Your task to perform on an android device: open wifi settings Image 0: 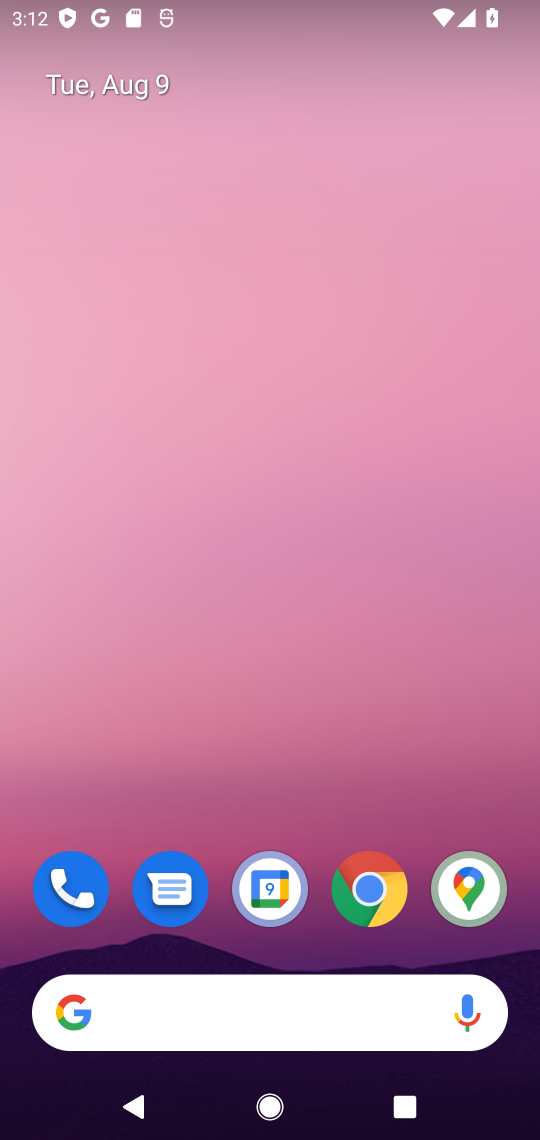
Step 0: drag from (302, 777) to (374, 0)
Your task to perform on an android device: open wifi settings Image 1: 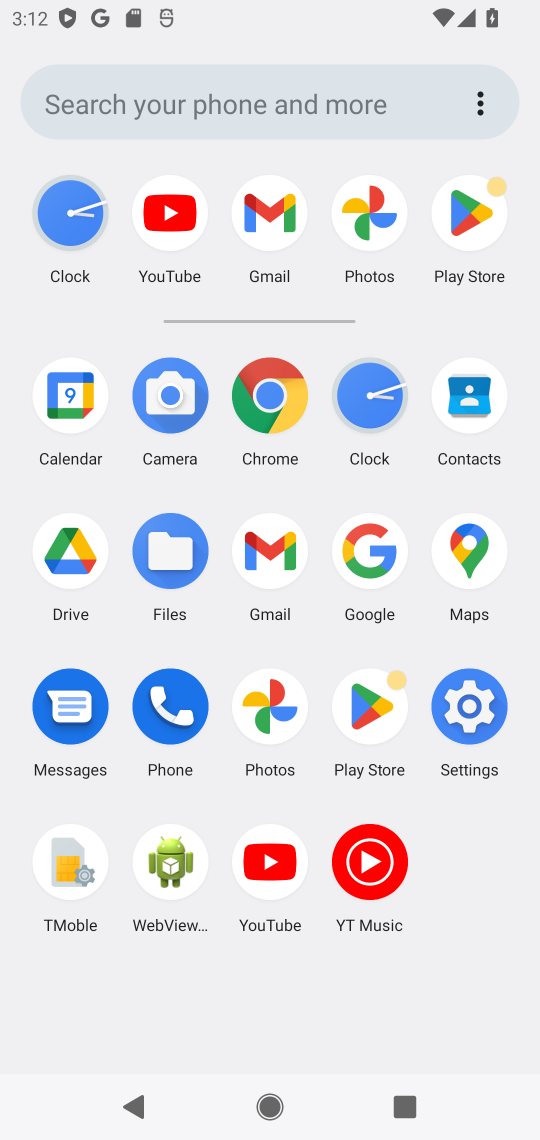
Step 1: click (464, 700)
Your task to perform on an android device: open wifi settings Image 2: 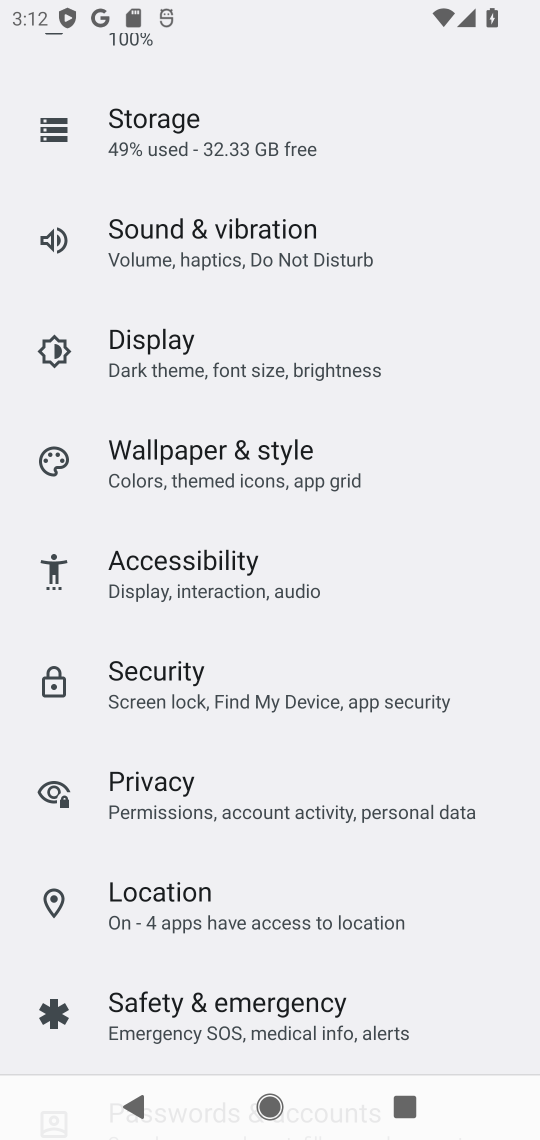
Step 2: drag from (309, 195) to (317, 904)
Your task to perform on an android device: open wifi settings Image 3: 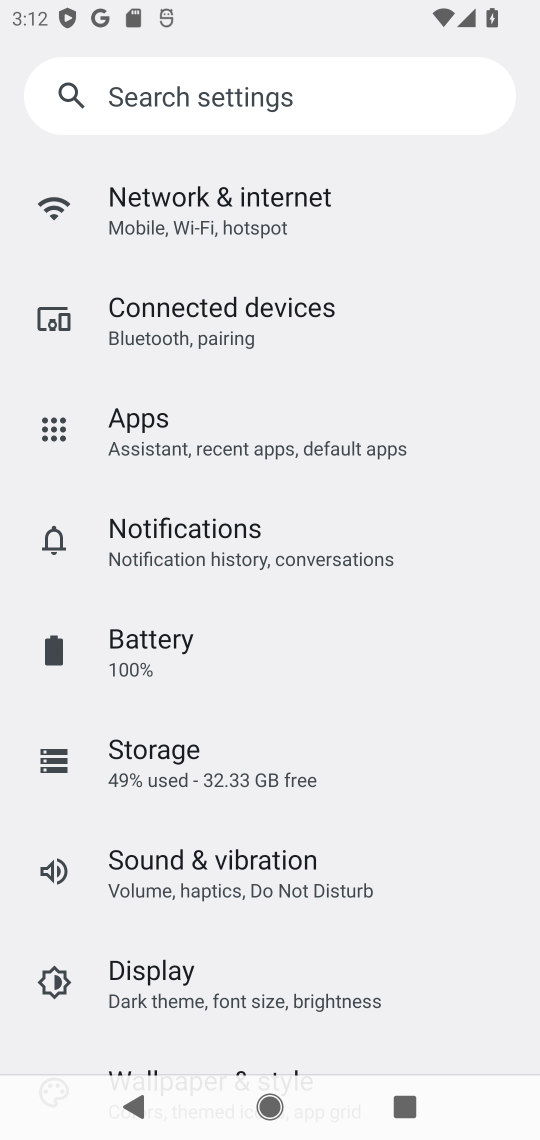
Step 3: drag from (321, 380) to (286, 964)
Your task to perform on an android device: open wifi settings Image 4: 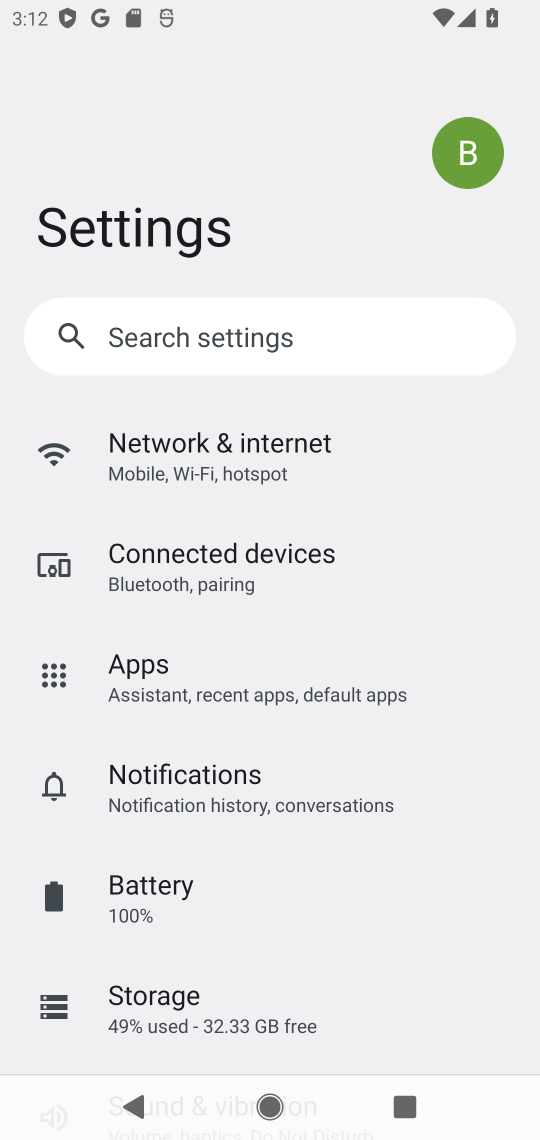
Step 4: click (286, 458)
Your task to perform on an android device: open wifi settings Image 5: 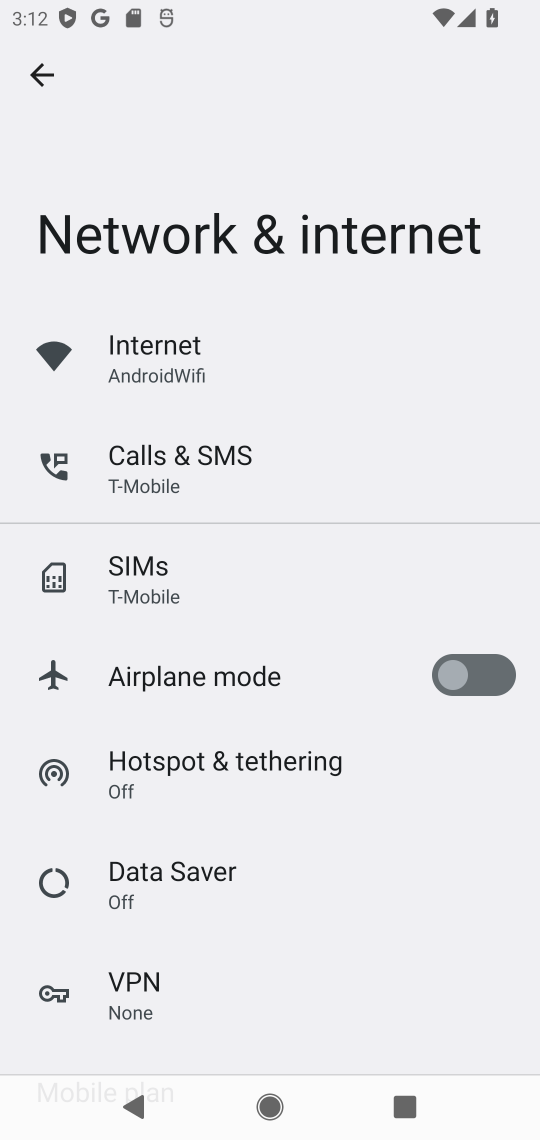
Step 5: click (165, 343)
Your task to perform on an android device: open wifi settings Image 6: 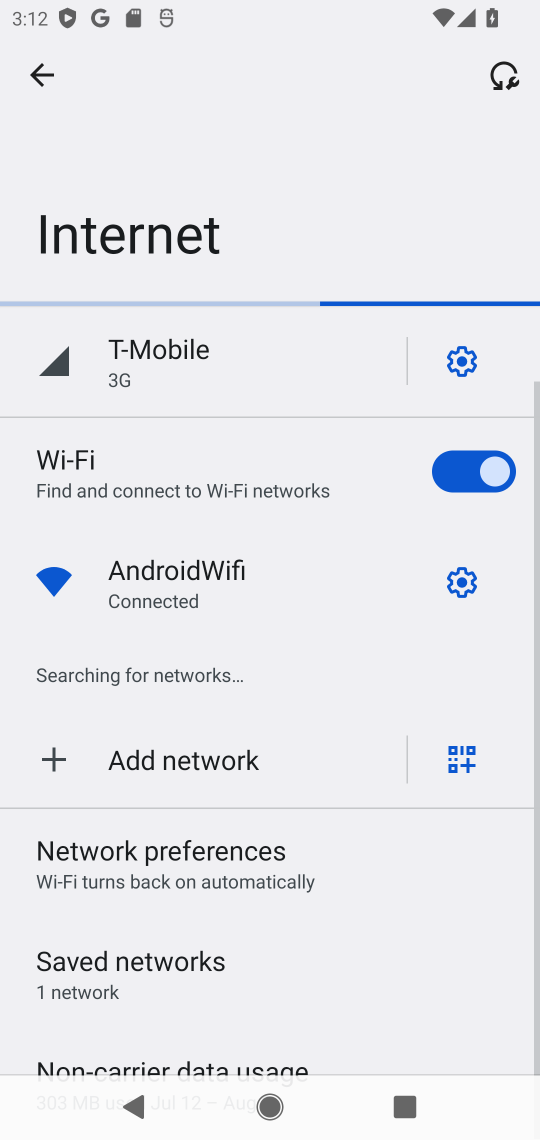
Step 6: task complete